Your task to perform on an android device: When is my next appointment? Image 0: 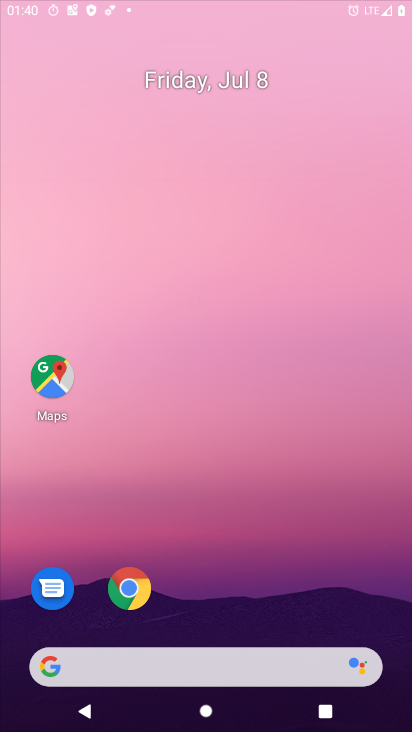
Step 0: drag from (239, 624) to (206, 173)
Your task to perform on an android device: When is my next appointment? Image 1: 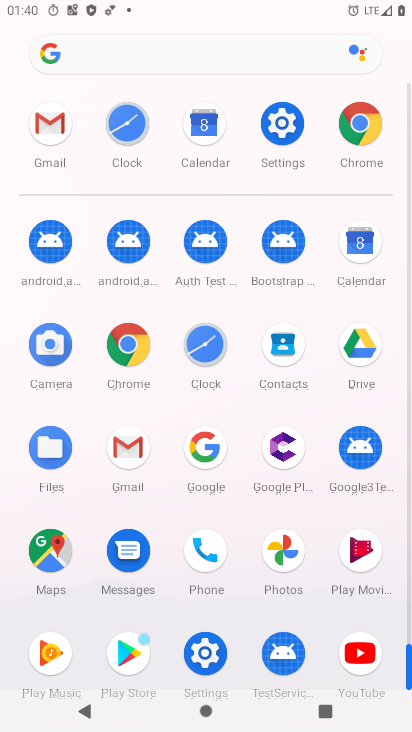
Step 1: click (358, 245)
Your task to perform on an android device: When is my next appointment? Image 2: 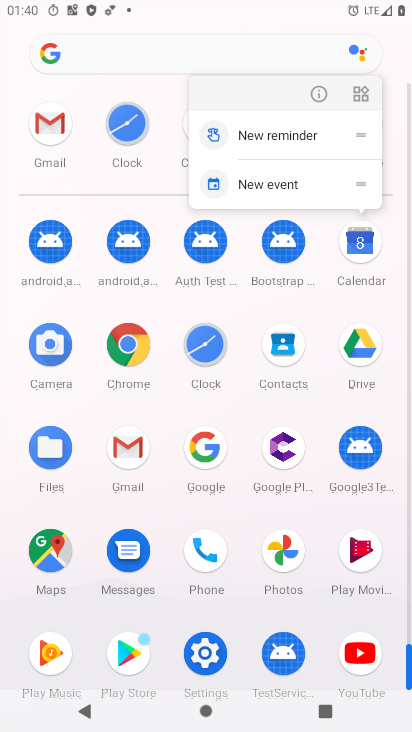
Step 2: click (310, 92)
Your task to perform on an android device: When is my next appointment? Image 3: 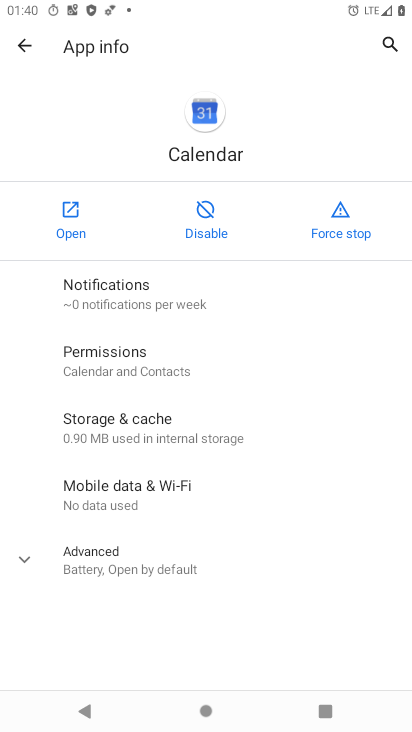
Step 3: click (85, 218)
Your task to perform on an android device: When is my next appointment? Image 4: 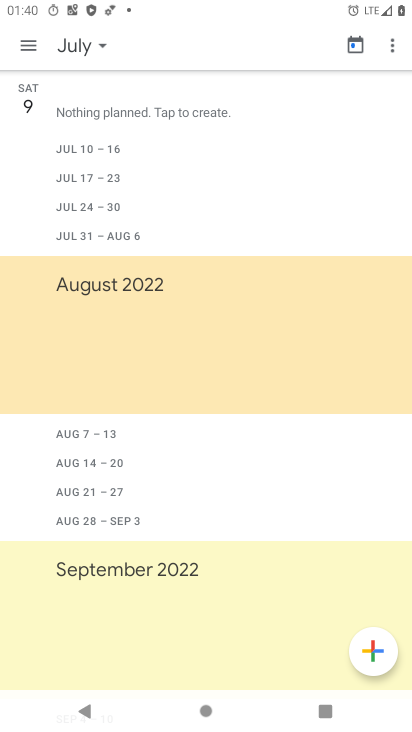
Step 4: click (68, 44)
Your task to perform on an android device: When is my next appointment? Image 5: 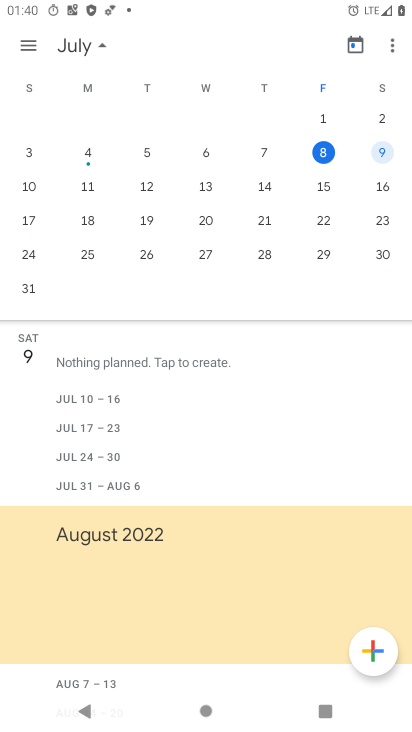
Step 5: click (327, 148)
Your task to perform on an android device: When is my next appointment? Image 6: 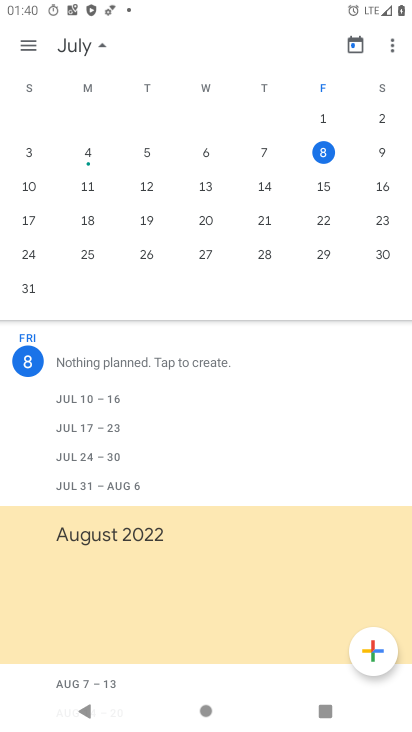
Step 6: click (68, 362)
Your task to perform on an android device: When is my next appointment? Image 7: 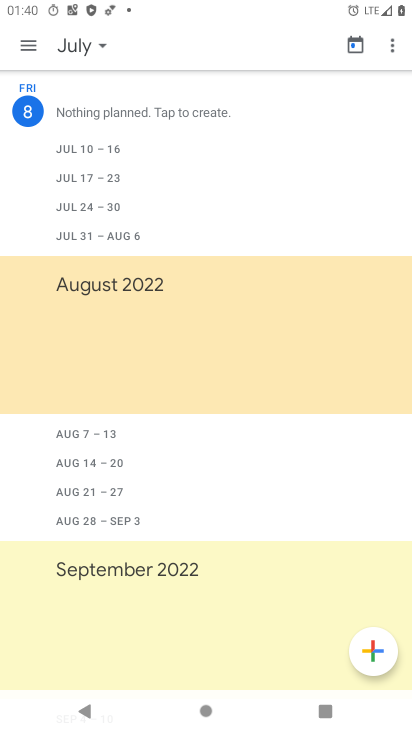
Step 7: task complete